Your task to perform on an android device: Is it going to rain this weekend? Image 0: 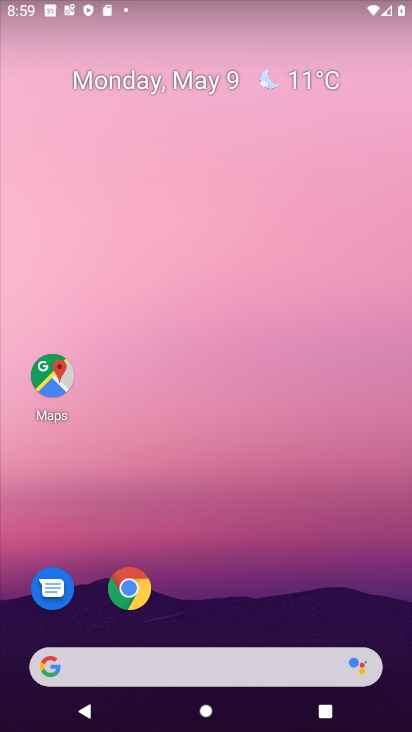
Step 0: press home button
Your task to perform on an android device: Is it going to rain this weekend? Image 1: 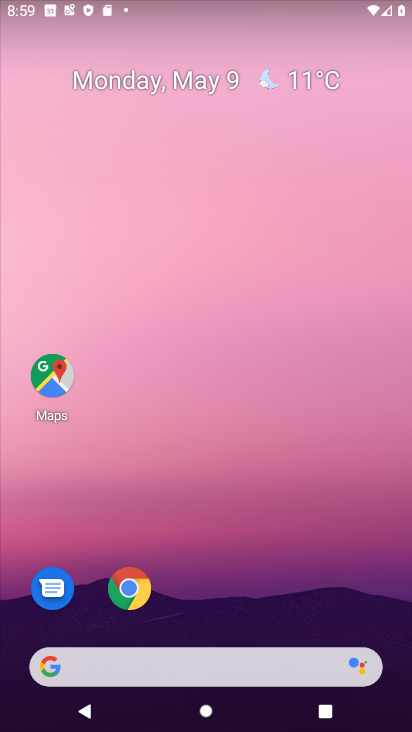
Step 1: click (311, 80)
Your task to perform on an android device: Is it going to rain this weekend? Image 2: 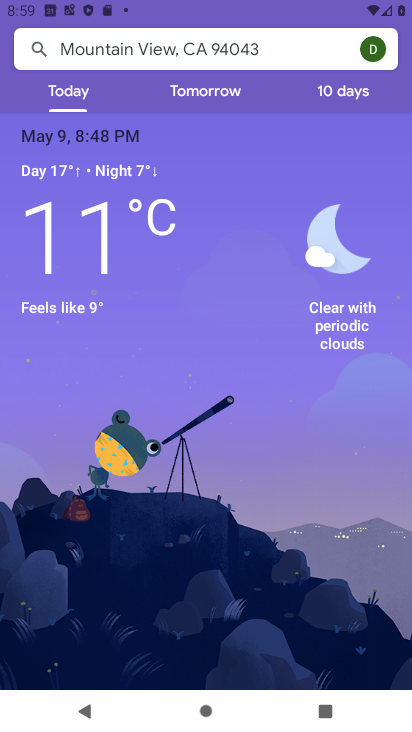
Step 2: click (336, 96)
Your task to perform on an android device: Is it going to rain this weekend? Image 3: 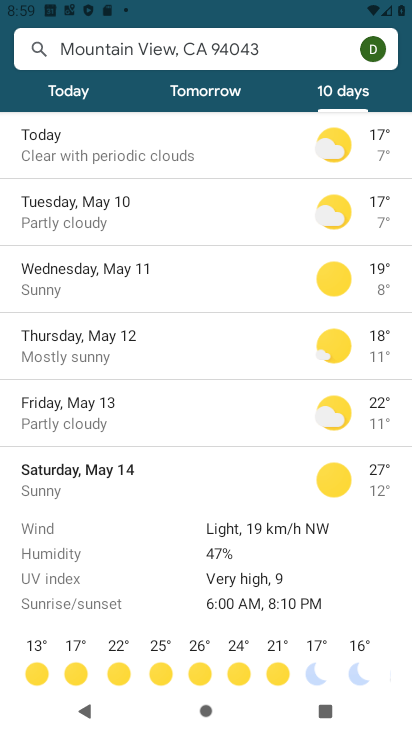
Step 3: task complete